Your task to perform on an android device: Search for Mexican restaurants on Maps Image 0: 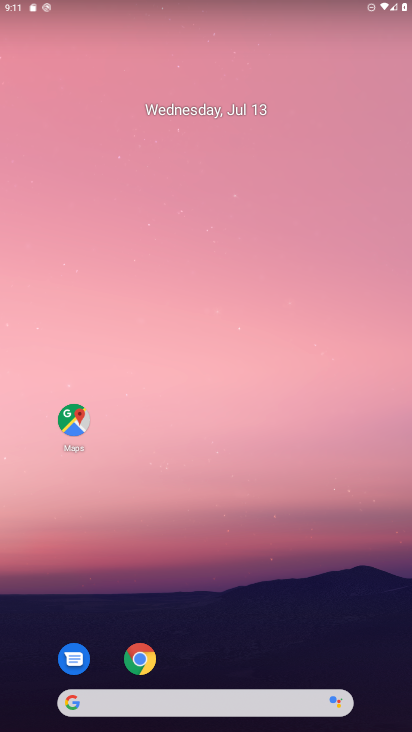
Step 0: click (76, 420)
Your task to perform on an android device: Search for Mexican restaurants on Maps Image 1: 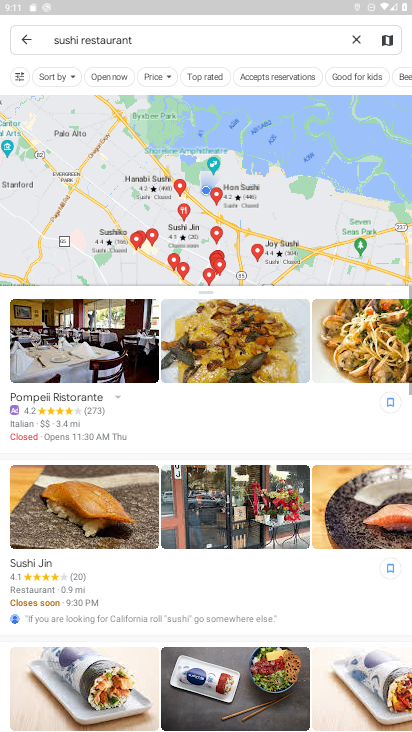
Step 1: click (354, 35)
Your task to perform on an android device: Search for Mexican restaurants on Maps Image 2: 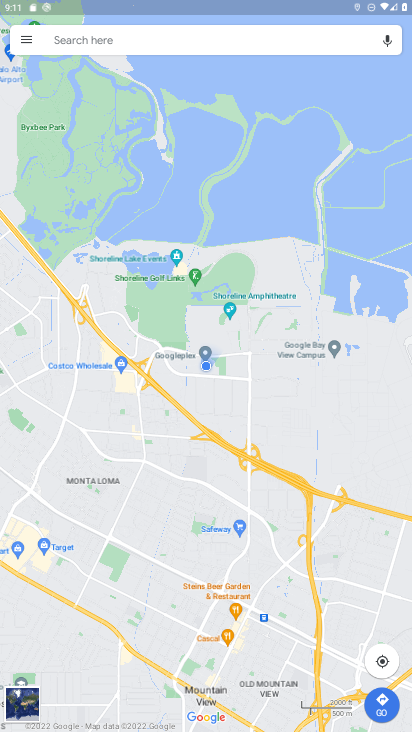
Step 2: click (232, 36)
Your task to perform on an android device: Search for Mexican restaurants on Maps Image 3: 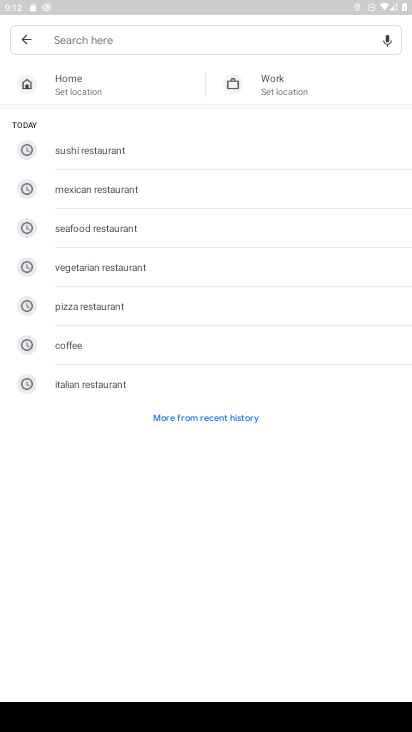
Step 3: click (121, 188)
Your task to perform on an android device: Search for Mexican restaurants on Maps Image 4: 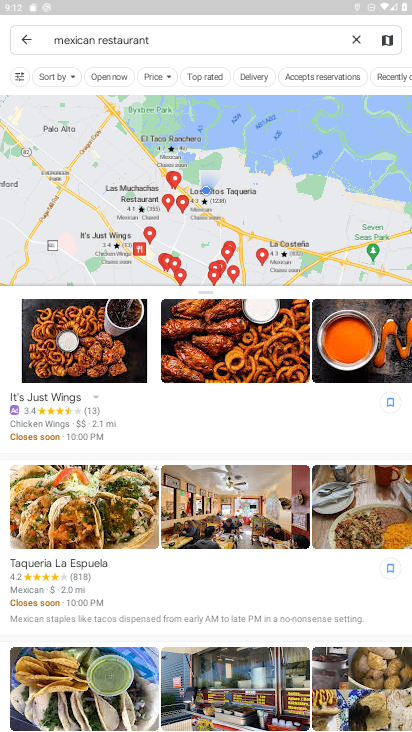
Step 4: task complete